Your task to perform on an android device: What is the recent news? Image 0: 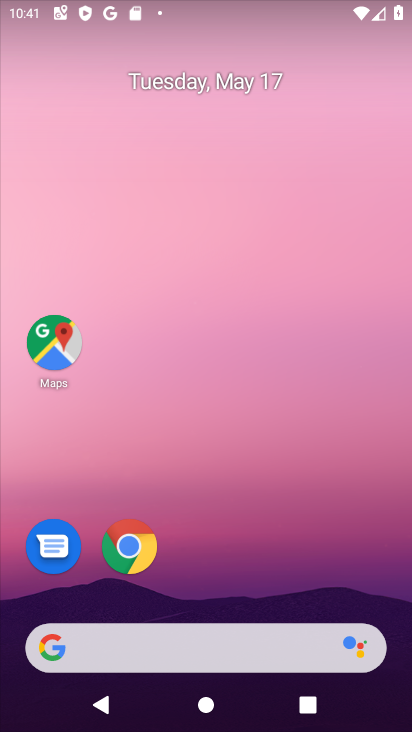
Step 0: drag from (5, 437) to (396, 346)
Your task to perform on an android device: What is the recent news? Image 1: 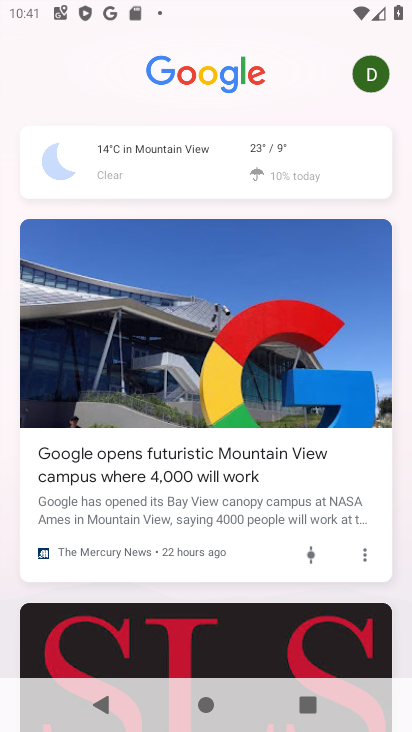
Step 1: task complete